Your task to perform on an android device: delete the emails in spam in the gmail app Image 0: 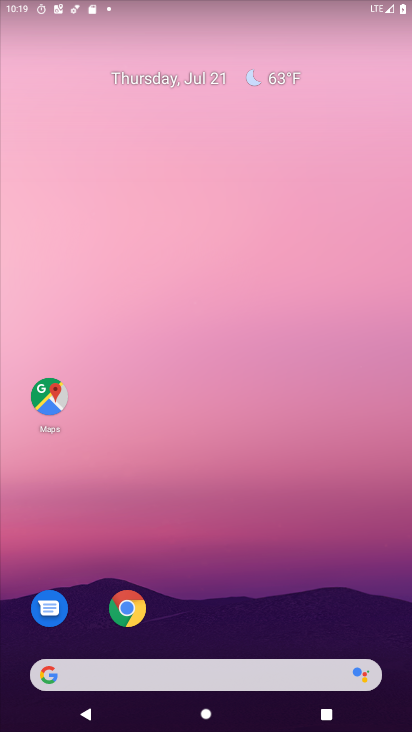
Step 0: drag from (203, 576) to (268, 120)
Your task to perform on an android device: delete the emails in spam in the gmail app Image 1: 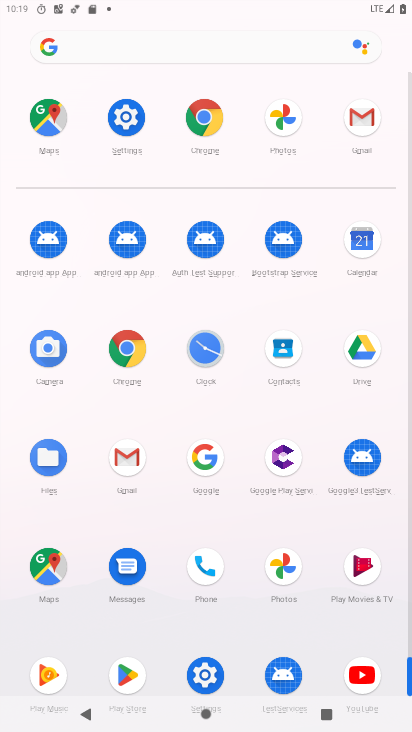
Step 1: click (355, 122)
Your task to perform on an android device: delete the emails in spam in the gmail app Image 2: 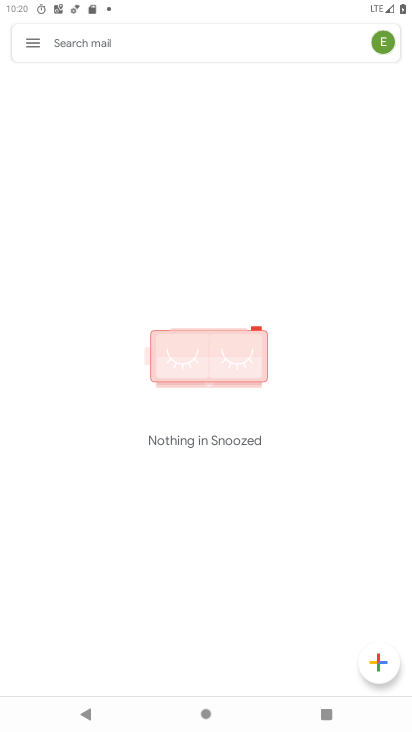
Step 2: click (27, 41)
Your task to perform on an android device: delete the emails in spam in the gmail app Image 3: 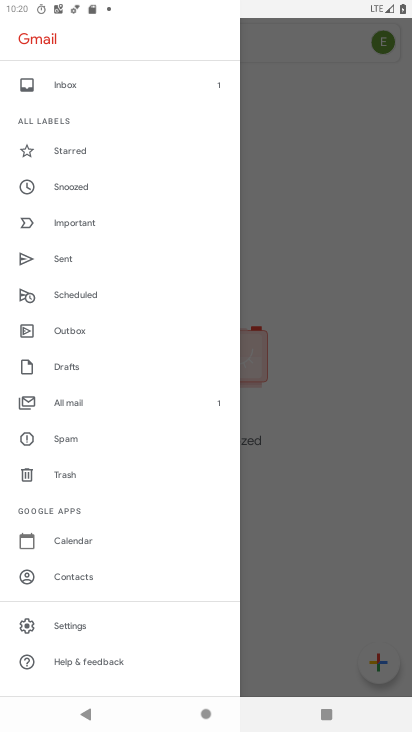
Step 3: click (63, 441)
Your task to perform on an android device: delete the emails in spam in the gmail app Image 4: 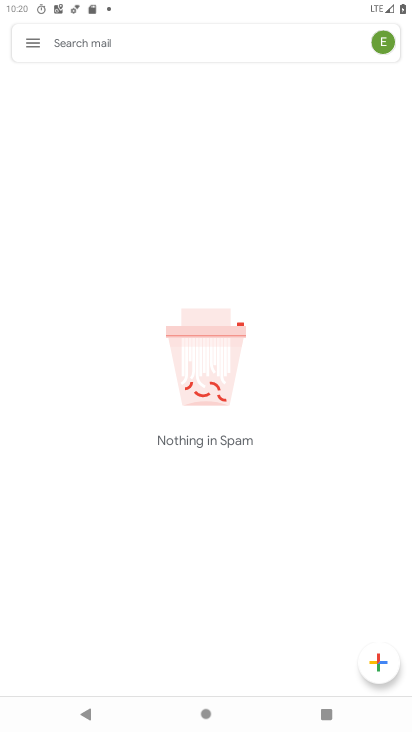
Step 4: task complete